Your task to perform on an android device: install app "Walmart Shopping & Grocery" Image 0: 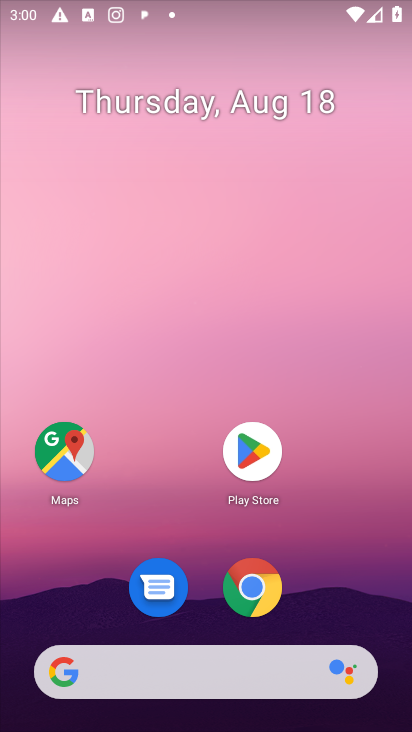
Step 0: press home button
Your task to perform on an android device: install app "Walmart Shopping & Grocery" Image 1: 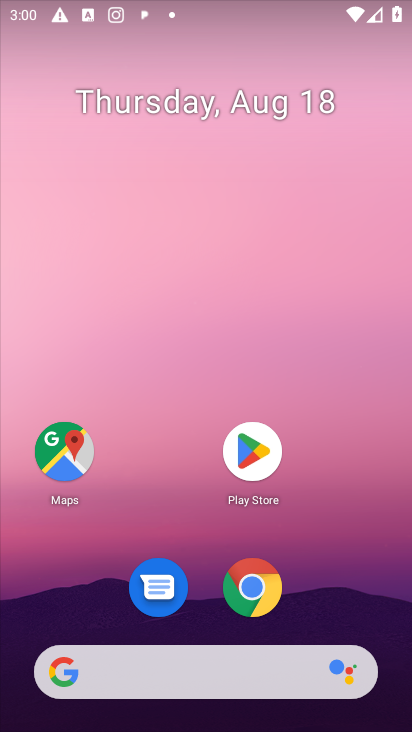
Step 1: click (246, 446)
Your task to perform on an android device: install app "Walmart Shopping & Grocery" Image 2: 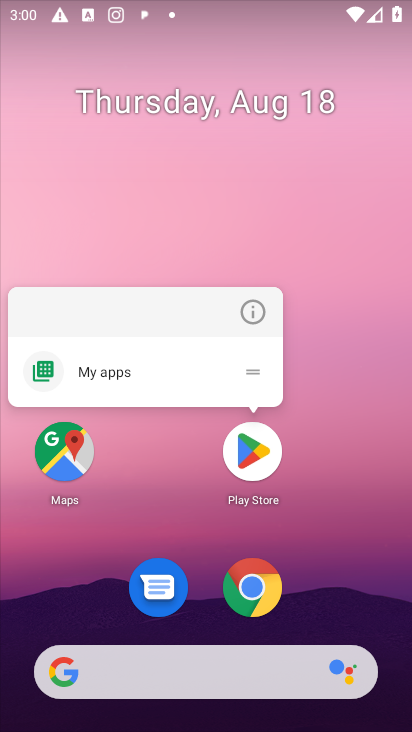
Step 2: click (246, 448)
Your task to perform on an android device: install app "Walmart Shopping & Grocery" Image 3: 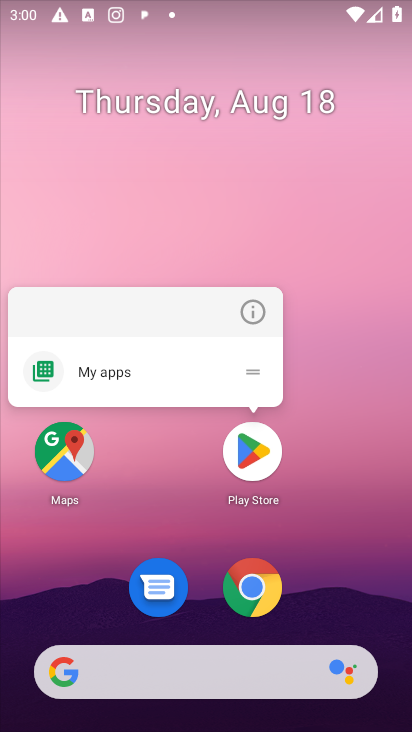
Step 3: click (241, 454)
Your task to perform on an android device: install app "Walmart Shopping & Grocery" Image 4: 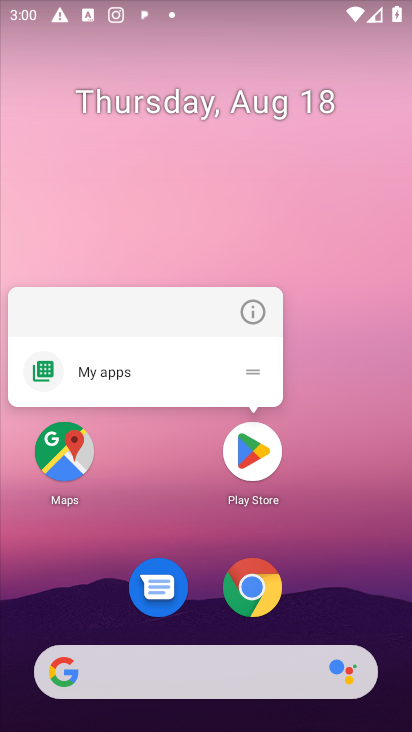
Step 4: click (241, 452)
Your task to perform on an android device: install app "Walmart Shopping & Grocery" Image 5: 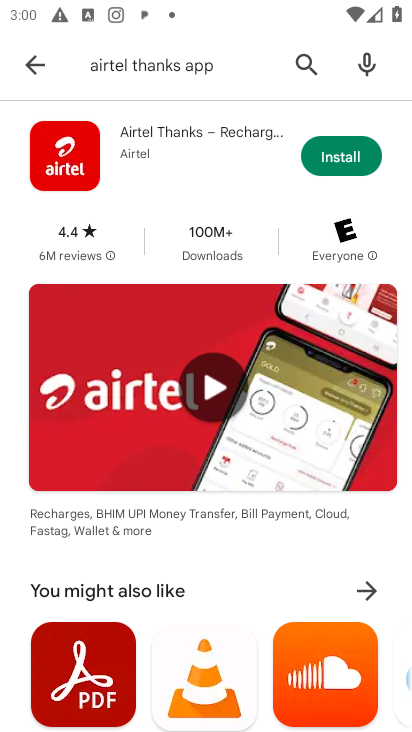
Step 5: click (304, 61)
Your task to perform on an android device: install app "Walmart Shopping & Grocery" Image 6: 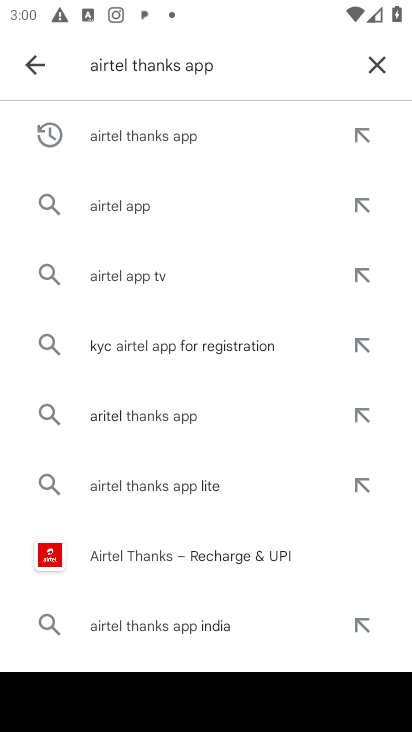
Step 6: click (370, 62)
Your task to perform on an android device: install app "Walmart Shopping & Grocery" Image 7: 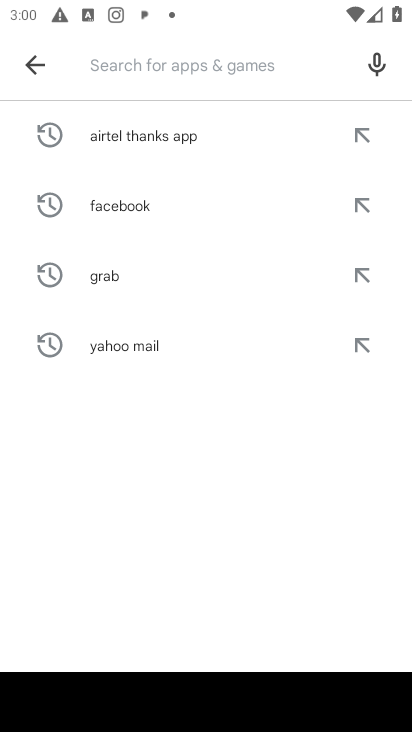
Step 7: type "Walmart Shopping & Grocery"
Your task to perform on an android device: install app "Walmart Shopping & Grocery" Image 8: 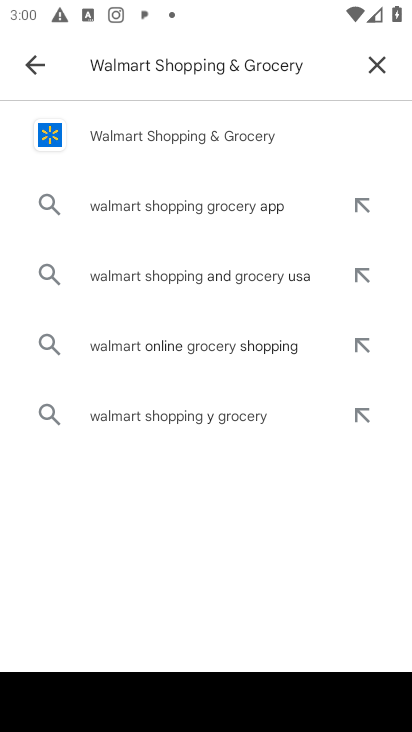
Step 8: click (169, 138)
Your task to perform on an android device: install app "Walmart Shopping & Grocery" Image 9: 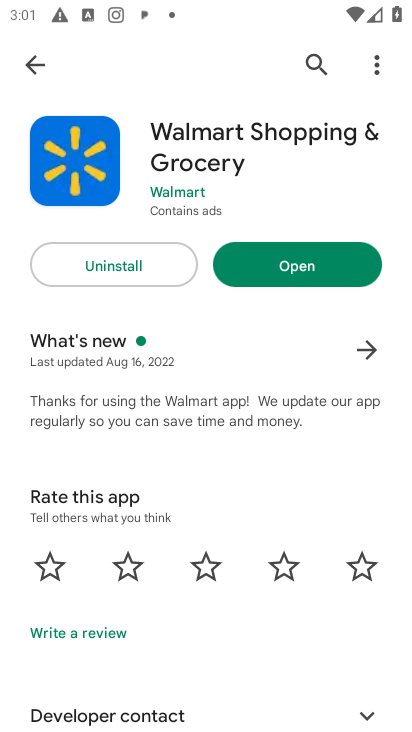
Step 9: task complete